Your task to perform on an android device: Open settings on Google Maps Image 0: 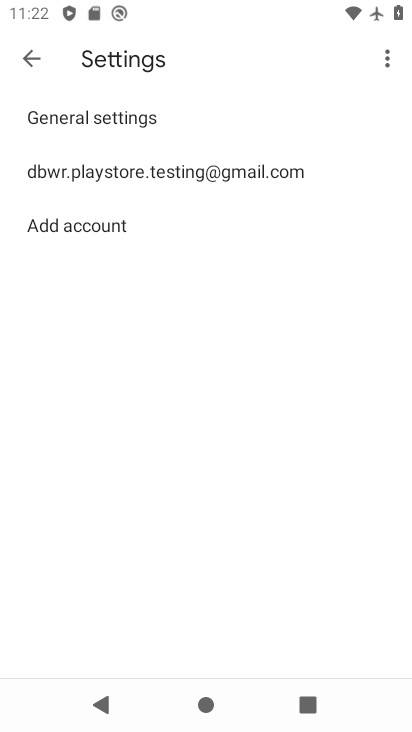
Step 0: press home button
Your task to perform on an android device: Open settings on Google Maps Image 1: 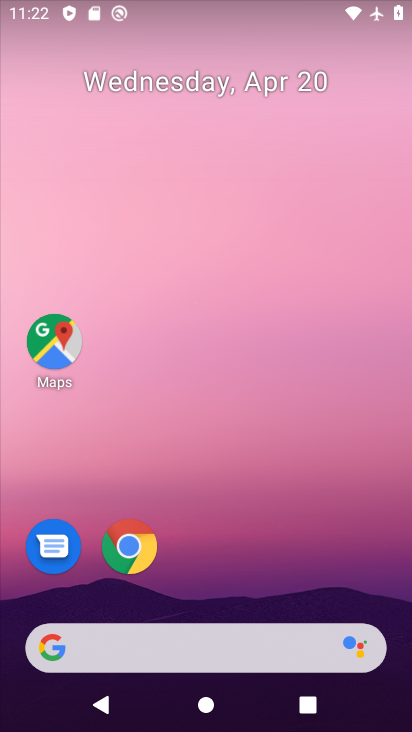
Step 1: drag from (212, 504) to (282, 70)
Your task to perform on an android device: Open settings on Google Maps Image 2: 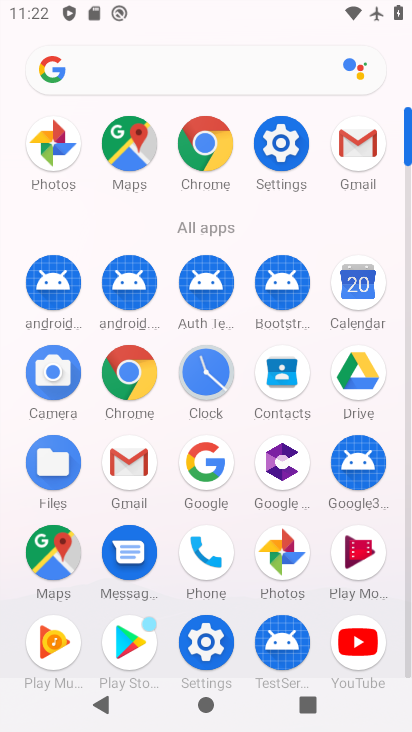
Step 2: click (53, 564)
Your task to perform on an android device: Open settings on Google Maps Image 3: 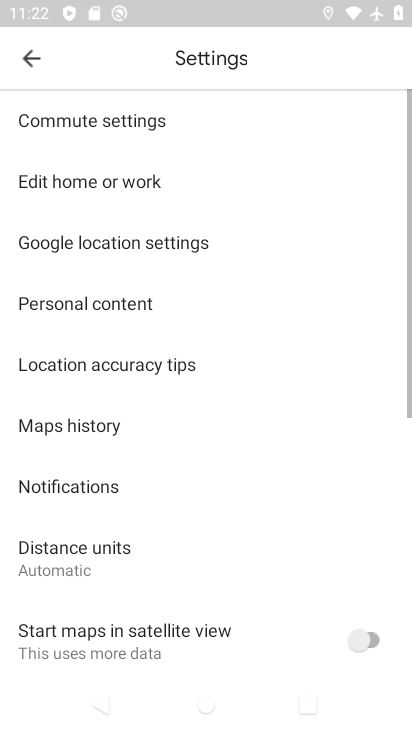
Step 3: task complete